Your task to perform on an android device: Clear all items from cart on amazon.com. Search for alienware area 51 on amazon.com, select the first entry, and add it to the cart. Image 0: 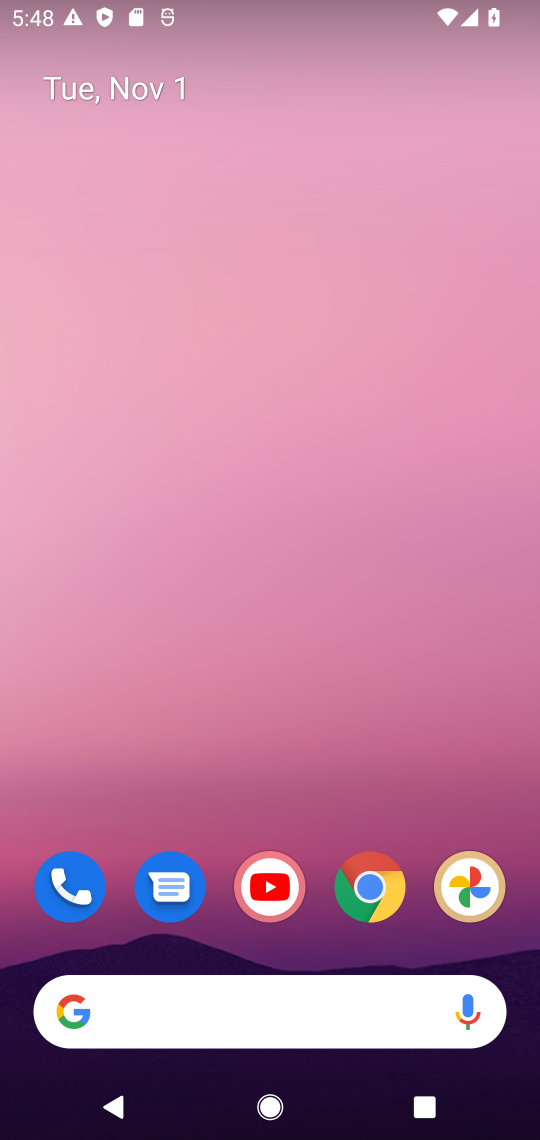
Step 0: press home button
Your task to perform on an android device: Clear all items from cart on amazon.com. Search for alienware area 51 on amazon.com, select the first entry, and add it to the cart. Image 1: 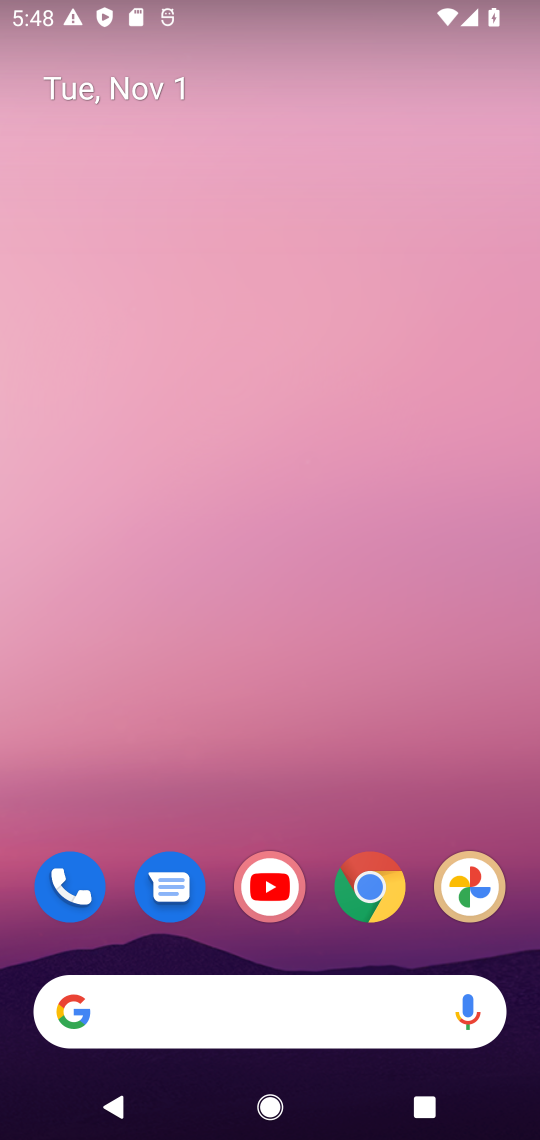
Step 1: press home button
Your task to perform on an android device: Clear all items from cart on amazon.com. Search for alienware area 51 on amazon.com, select the first entry, and add it to the cart. Image 2: 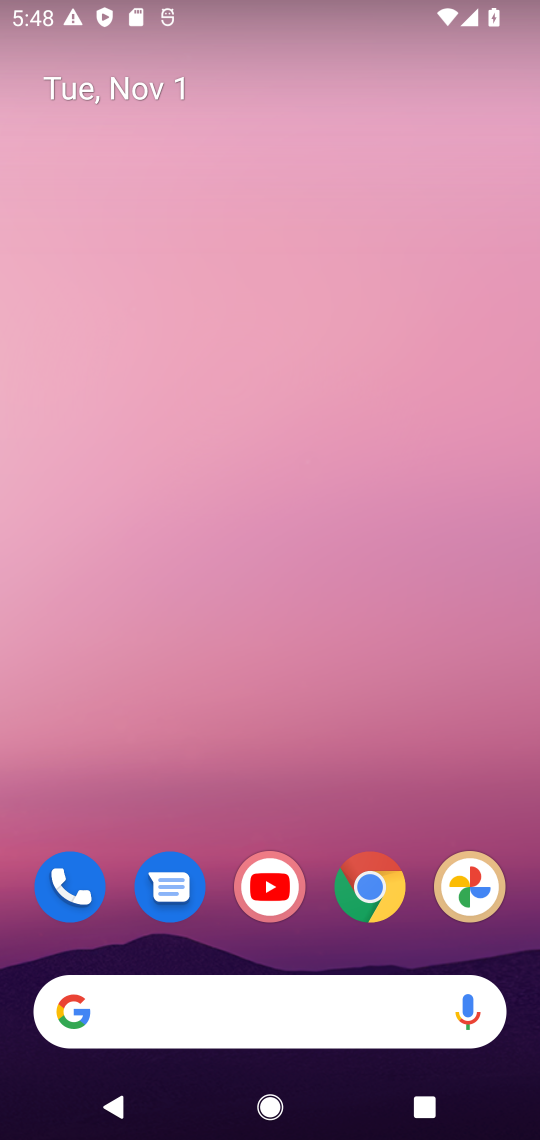
Step 2: drag from (331, 844) to (371, 105)
Your task to perform on an android device: Clear all items from cart on amazon.com. Search for alienware area 51 on amazon.com, select the first entry, and add it to the cart. Image 3: 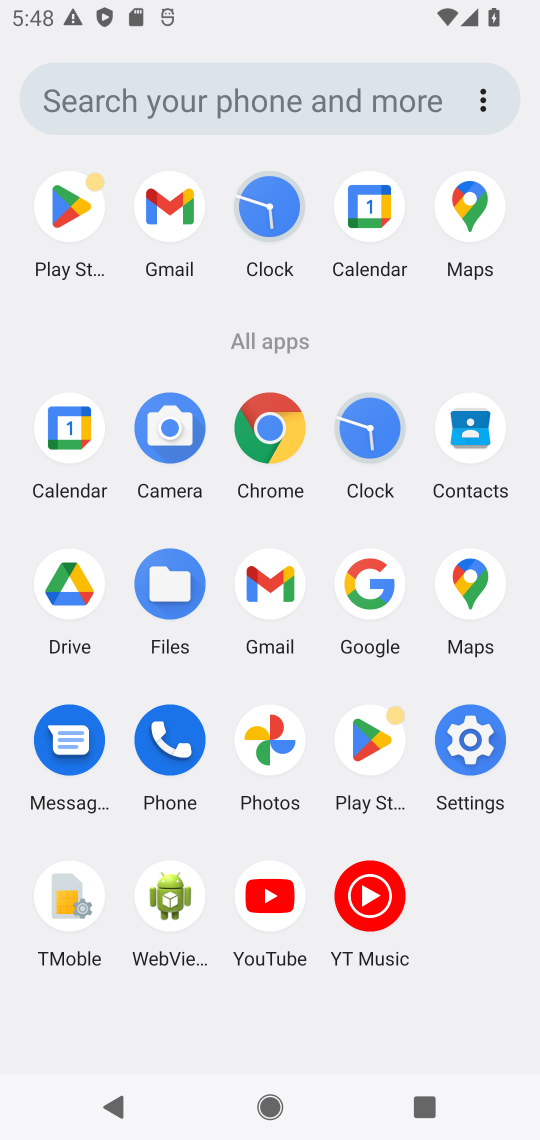
Step 3: click (272, 422)
Your task to perform on an android device: Clear all items from cart on amazon.com. Search for alienware area 51 on amazon.com, select the first entry, and add it to the cart. Image 4: 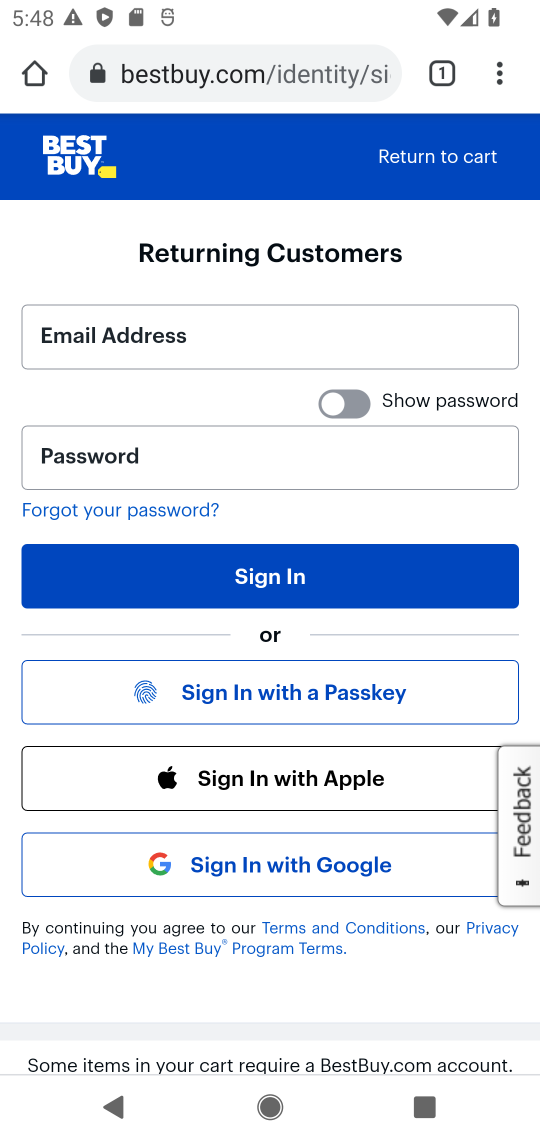
Step 4: click (182, 67)
Your task to perform on an android device: Clear all items from cart on amazon.com. Search for alienware area 51 on amazon.com, select the first entry, and add it to the cart. Image 5: 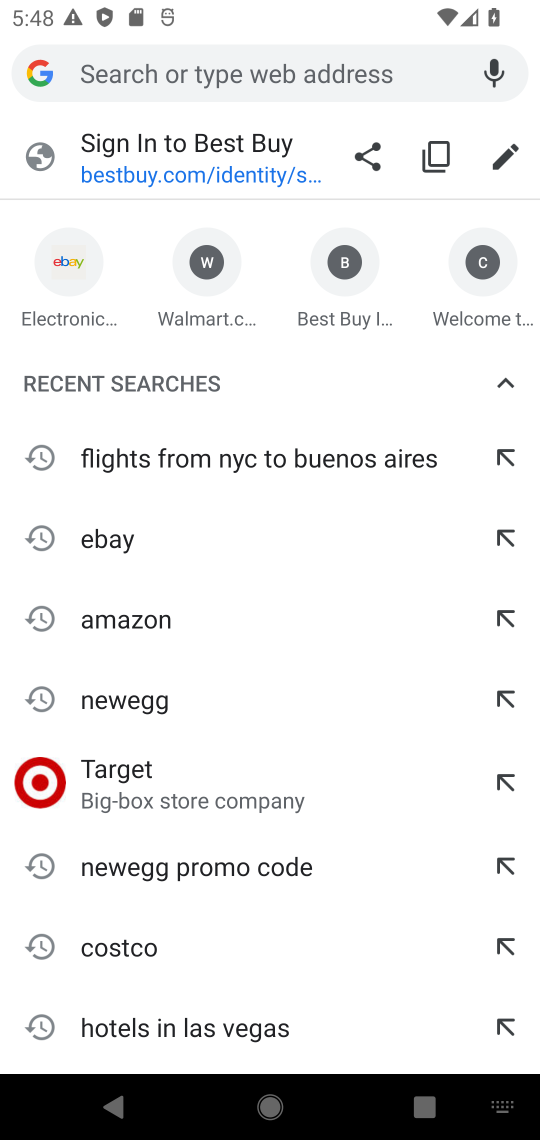
Step 5: click (162, 624)
Your task to perform on an android device: Clear all items from cart on amazon.com. Search for alienware area 51 on amazon.com, select the first entry, and add it to the cart. Image 6: 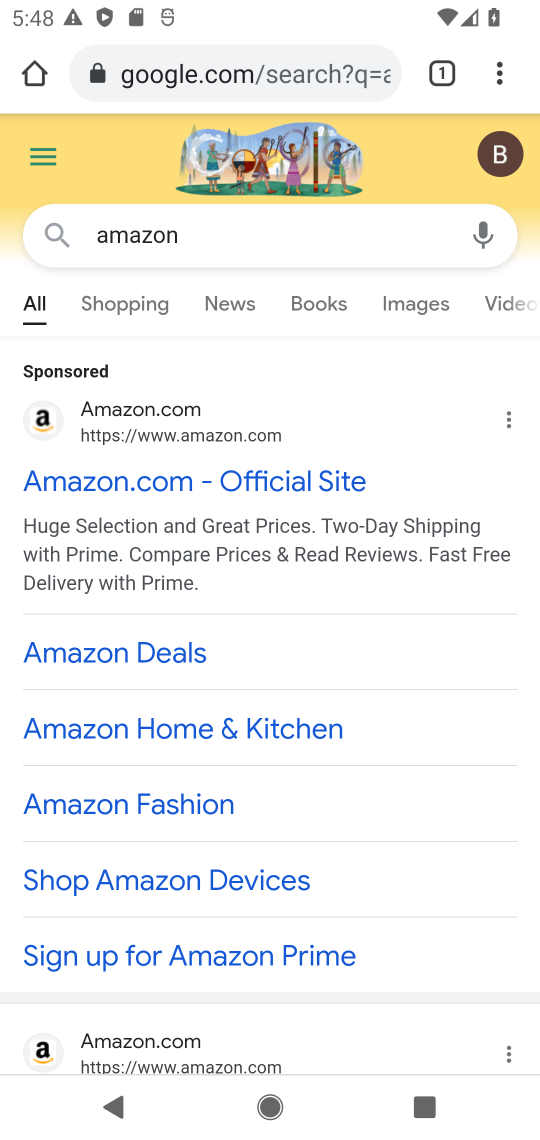
Step 6: click (182, 477)
Your task to perform on an android device: Clear all items from cart on amazon.com. Search for alienware area 51 on amazon.com, select the first entry, and add it to the cart. Image 7: 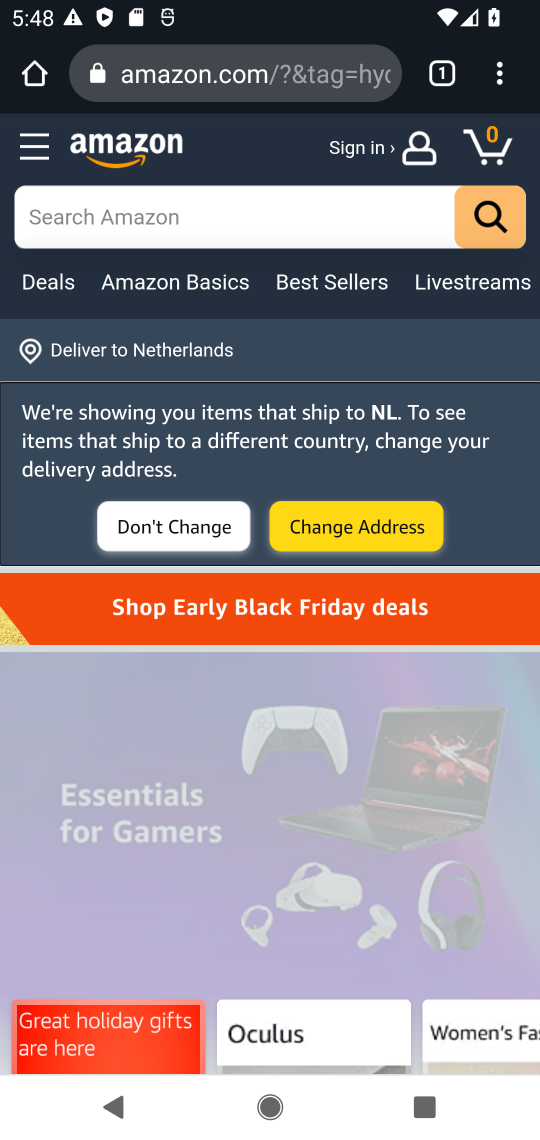
Step 7: click (123, 212)
Your task to perform on an android device: Clear all items from cart on amazon.com. Search for alienware area 51 on amazon.com, select the first entry, and add it to the cart. Image 8: 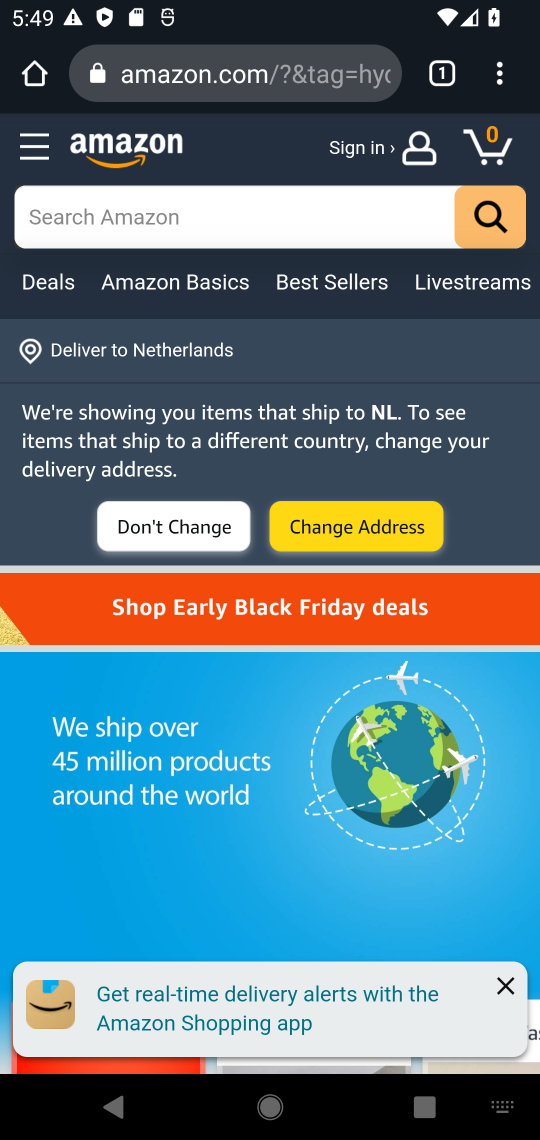
Step 8: type "alienware area 51"
Your task to perform on an android device: Clear all items from cart on amazon.com. Search for alienware area 51 on amazon.com, select the first entry, and add it to the cart. Image 9: 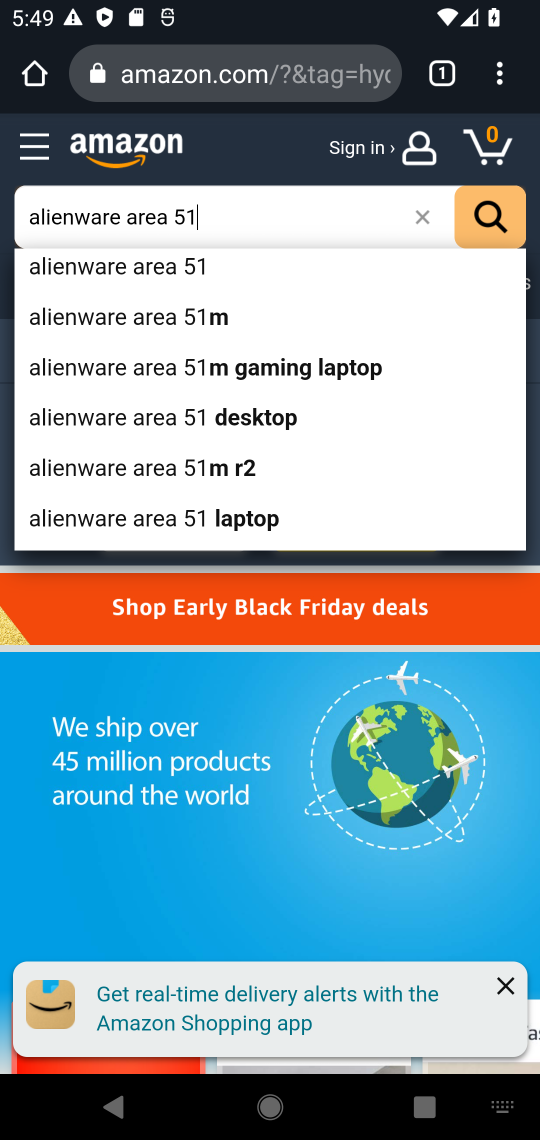
Step 9: click (206, 275)
Your task to perform on an android device: Clear all items from cart on amazon.com. Search for alienware area 51 on amazon.com, select the first entry, and add it to the cart. Image 10: 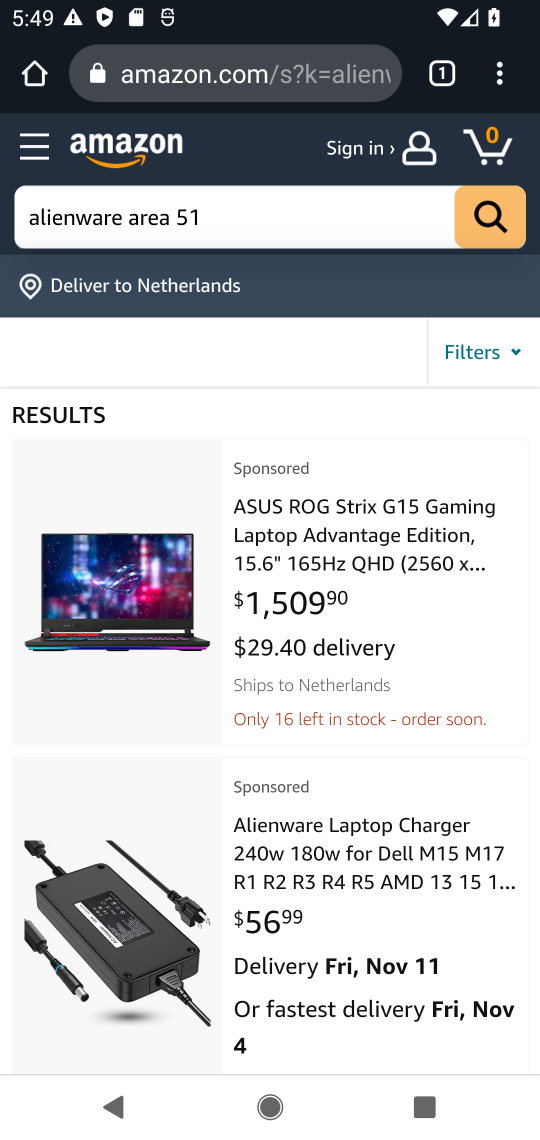
Step 10: click (499, 212)
Your task to perform on an android device: Clear all items from cart on amazon.com. Search for alienware area 51 on amazon.com, select the first entry, and add it to the cart. Image 11: 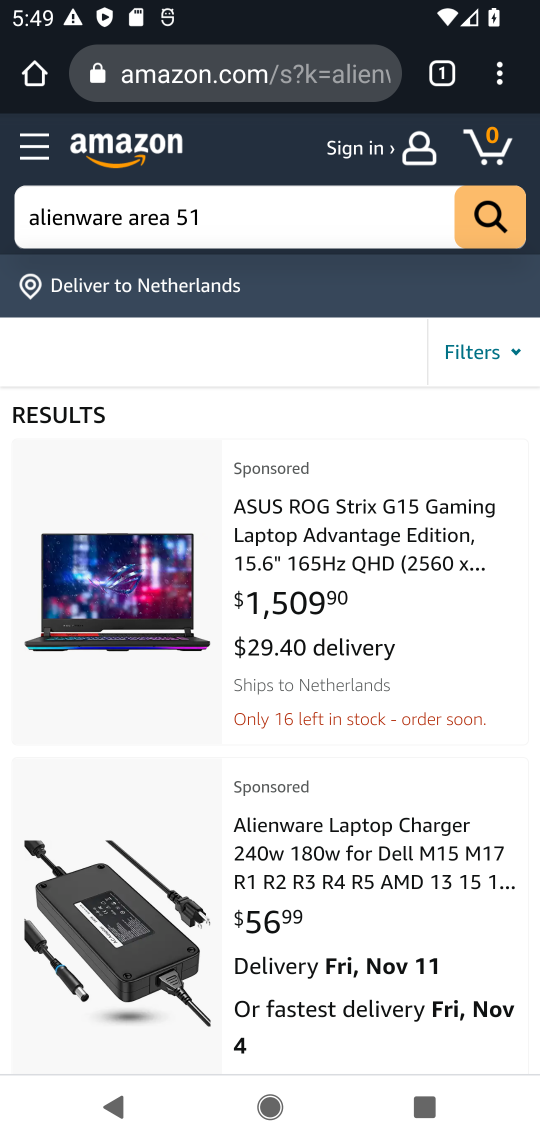
Step 11: drag from (336, 912) to (411, 476)
Your task to perform on an android device: Clear all items from cart on amazon.com. Search for alienware area 51 on amazon.com, select the first entry, and add it to the cart. Image 12: 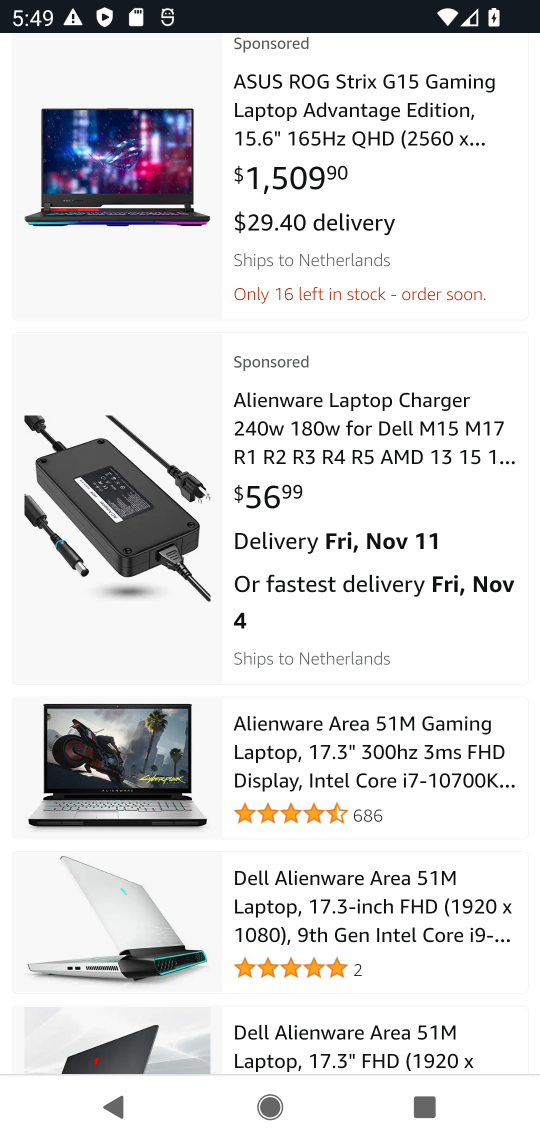
Step 12: click (338, 739)
Your task to perform on an android device: Clear all items from cart on amazon.com. Search for alienware area 51 on amazon.com, select the first entry, and add it to the cart. Image 13: 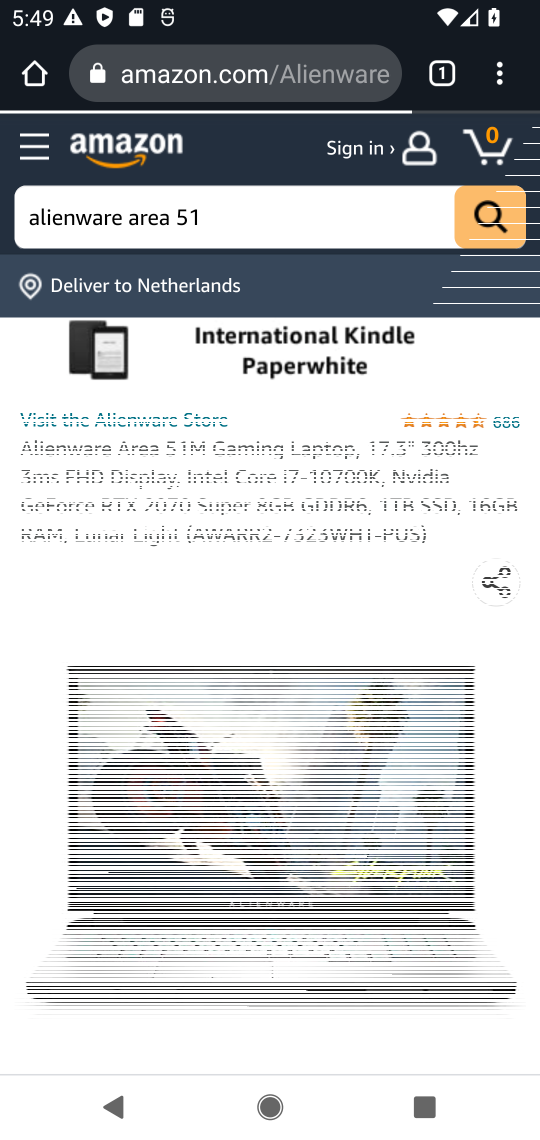
Step 13: drag from (502, 881) to (528, 455)
Your task to perform on an android device: Clear all items from cart on amazon.com. Search for alienware area 51 on amazon.com, select the first entry, and add it to the cart. Image 14: 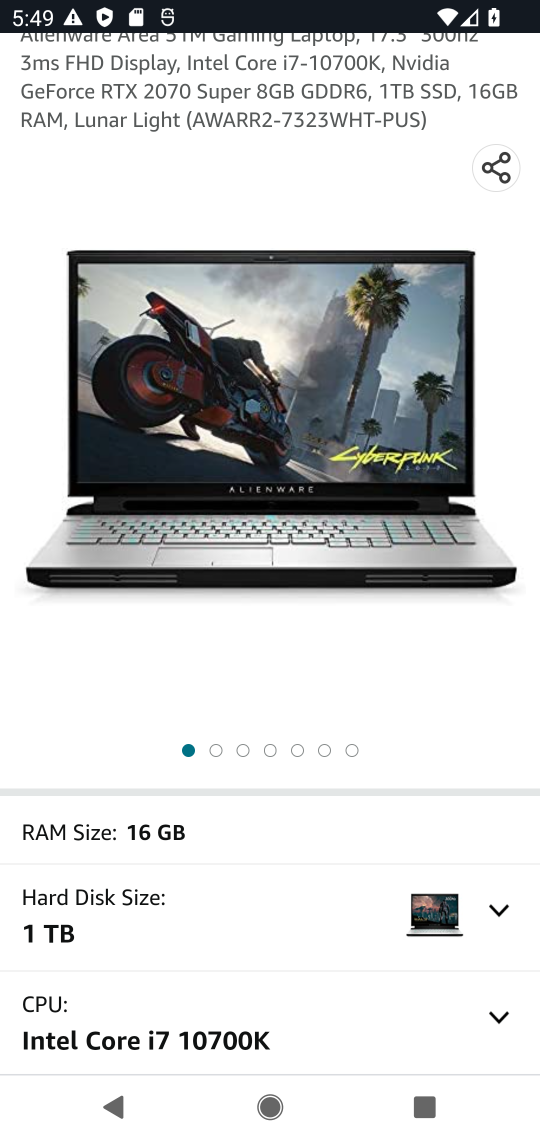
Step 14: drag from (282, 961) to (332, 419)
Your task to perform on an android device: Clear all items from cart on amazon.com. Search for alienware area 51 on amazon.com, select the first entry, and add it to the cart. Image 15: 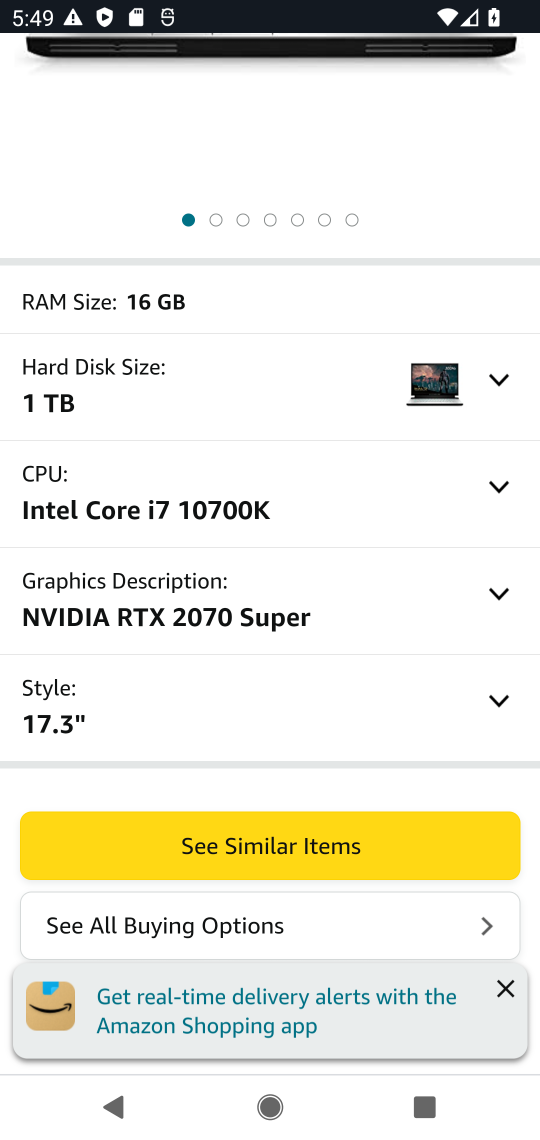
Step 15: drag from (316, 954) to (334, 765)
Your task to perform on an android device: Clear all items from cart on amazon.com. Search for alienware area 51 on amazon.com, select the first entry, and add it to the cart. Image 16: 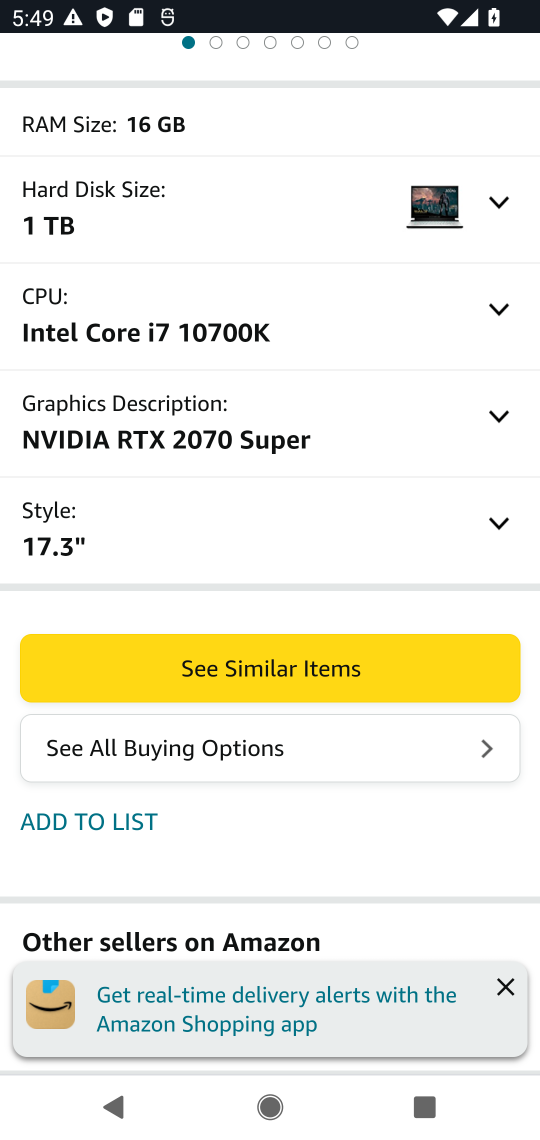
Step 16: press back button
Your task to perform on an android device: Clear all items from cart on amazon.com. Search for alienware area 51 on amazon.com, select the first entry, and add it to the cart. Image 17: 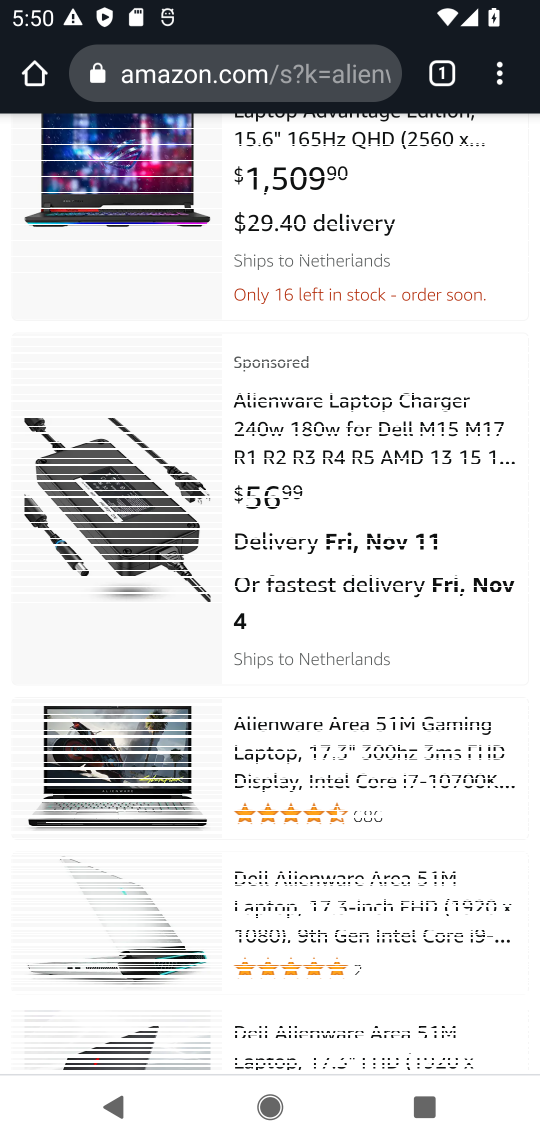
Step 17: click (275, 439)
Your task to perform on an android device: Clear all items from cart on amazon.com. Search for alienware area 51 on amazon.com, select the first entry, and add it to the cart. Image 18: 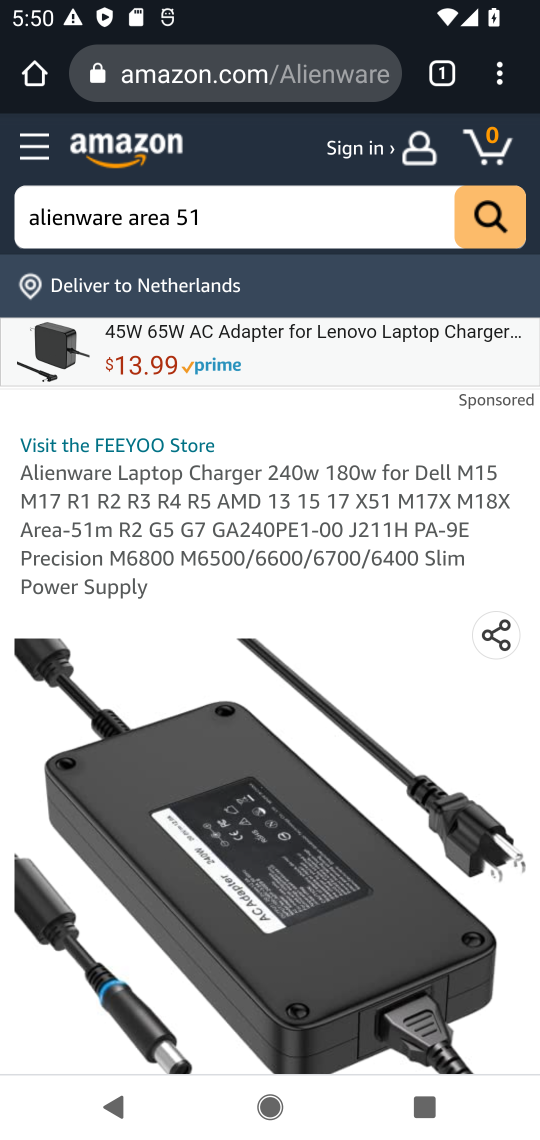
Step 18: drag from (418, 795) to (447, 266)
Your task to perform on an android device: Clear all items from cart on amazon.com. Search for alienware area 51 on amazon.com, select the first entry, and add it to the cart. Image 19: 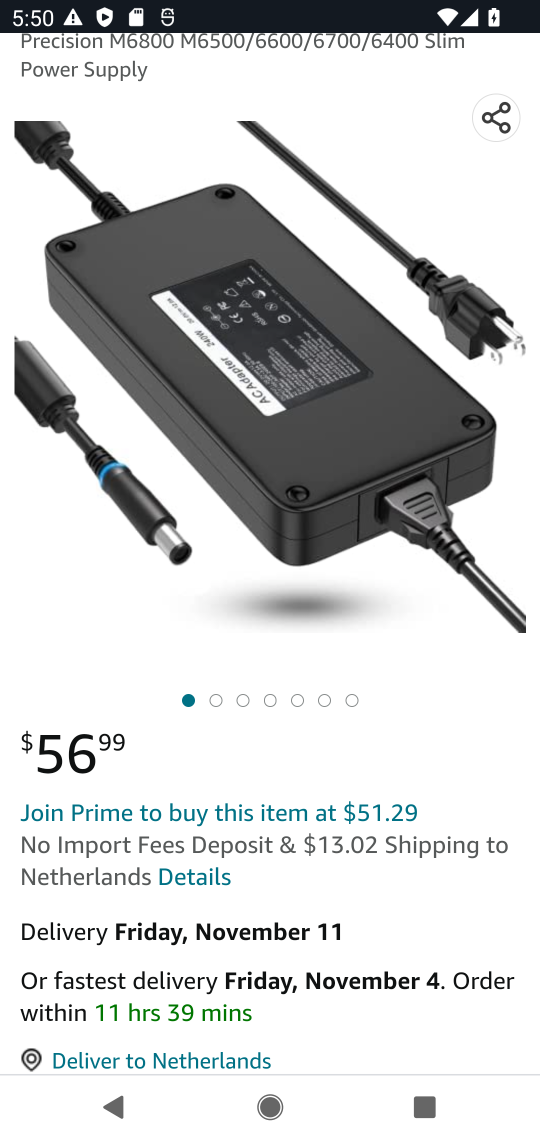
Step 19: drag from (401, 945) to (432, 425)
Your task to perform on an android device: Clear all items from cart on amazon.com. Search for alienware area 51 on amazon.com, select the first entry, and add it to the cart. Image 20: 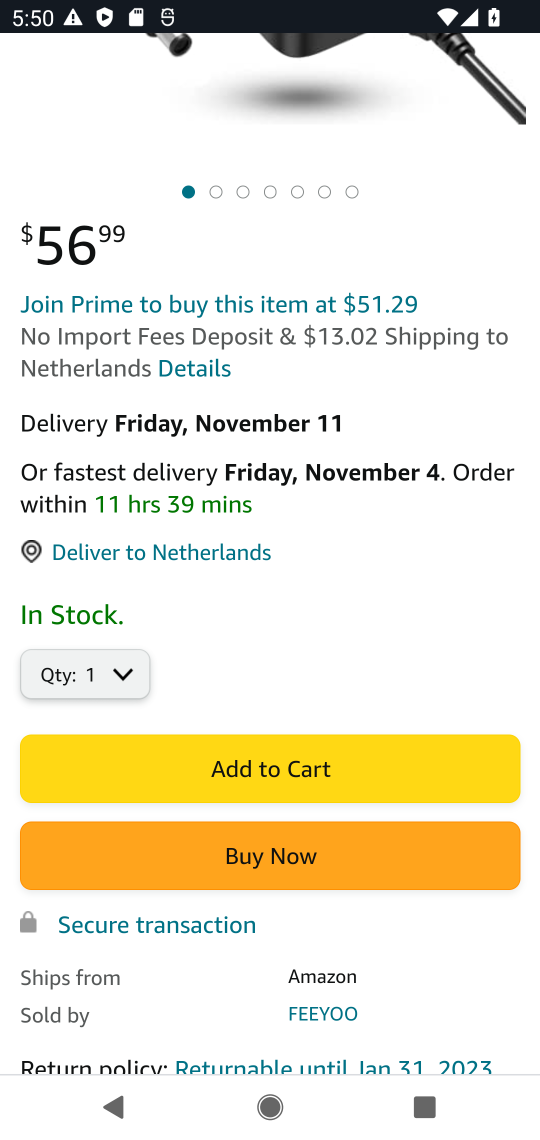
Step 20: click (264, 763)
Your task to perform on an android device: Clear all items from cart on amazon.com. Search for alienware area 51 on amazon.com, select the first entry, and add it to the cart. Image 21: 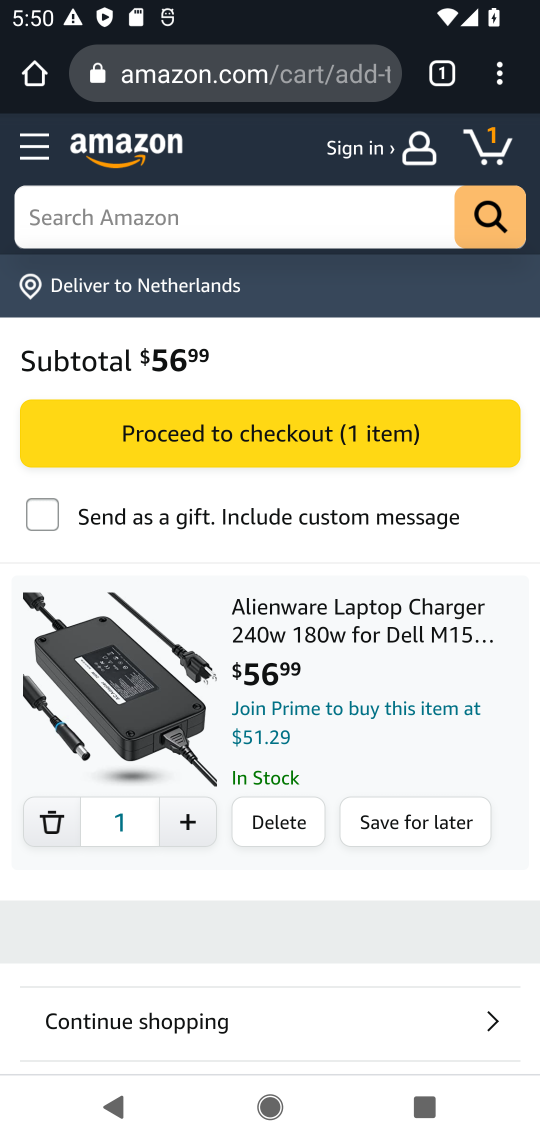
Step 21: click (242, 423)
Your task to perform on an android device: Clear all items from cart on amazon.com. Search for alienware area 51 on amazon.com, select the first entry, and add it to the cart. Image 22: 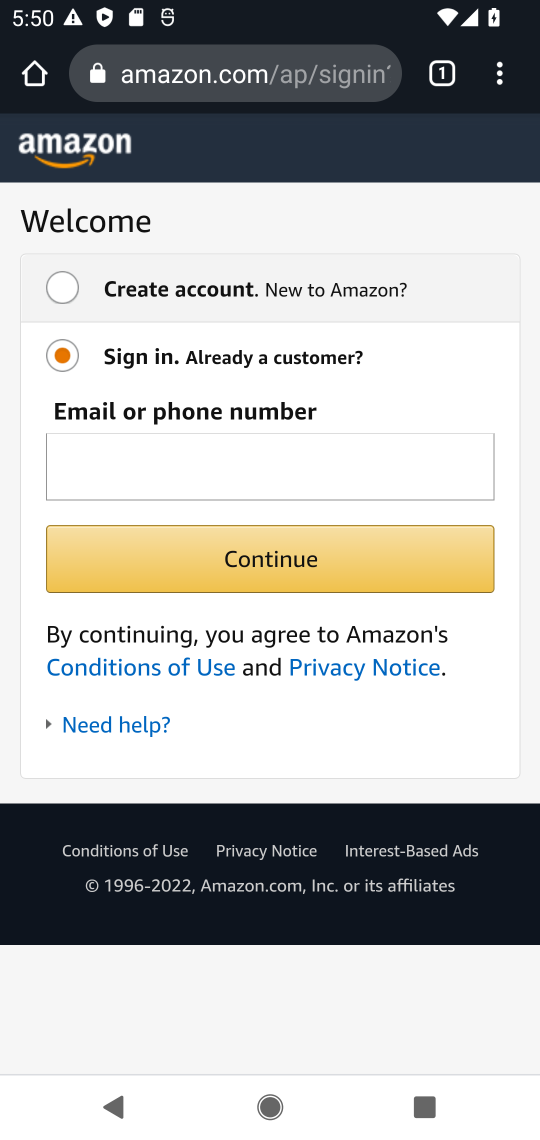
Step 22: task complete